Your task to perform on an android device: star an email in the gmail app Image 0: 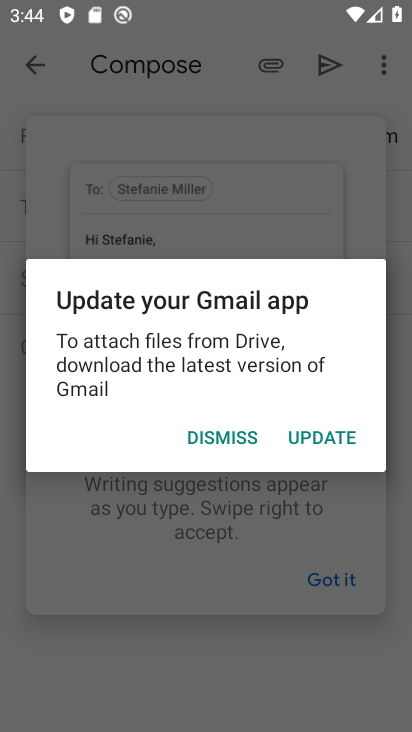
Step 0: press home button
Your task to perform on an android device: star an email in the gmail app Image 1: 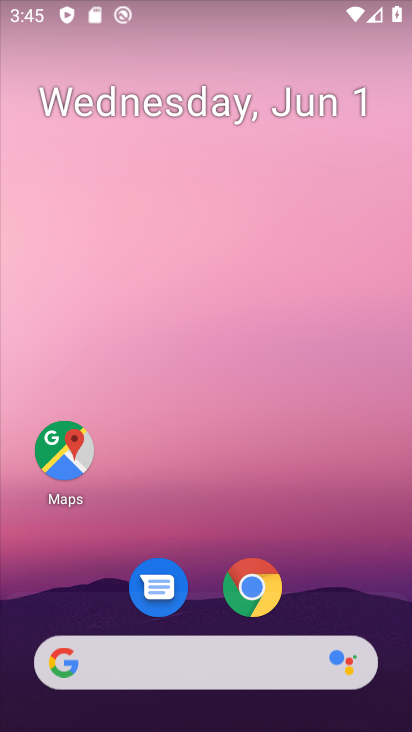
Step 1: drag from (309, 587) to (227, 194)
Your task to perform on an android device: star an email in the gmail app Image 2: 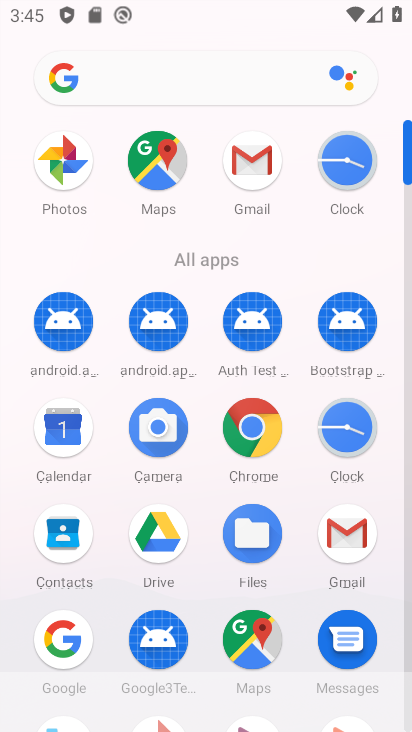
Step 2: click (250, 158)
Your task to perform on an android device: star an email in the gmail app Image 3: 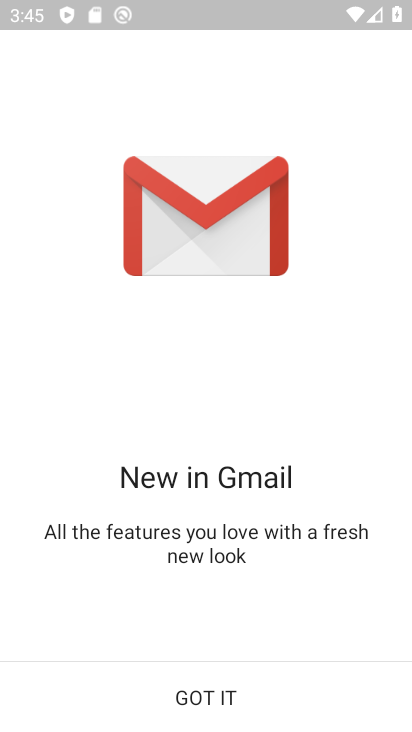
Step 3: click (208, 696)
Your task to perform on an android device: star an email in the gmail app Image 4: 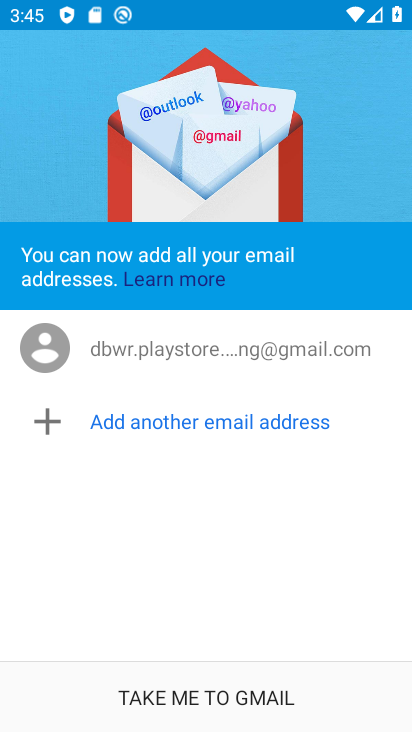
Step 4: click (208, 696)
Your task to perform on an android device: star an email in the gmail app Image 5: 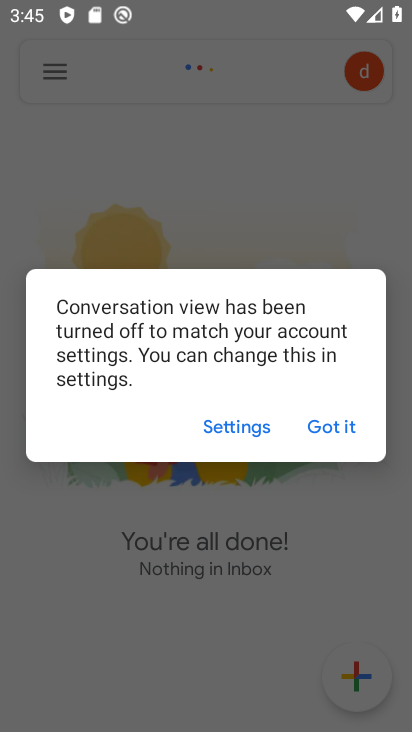
Step 5: click (332, 427)
Your task to perform on an android device: star an email in the gmail app Image 6: 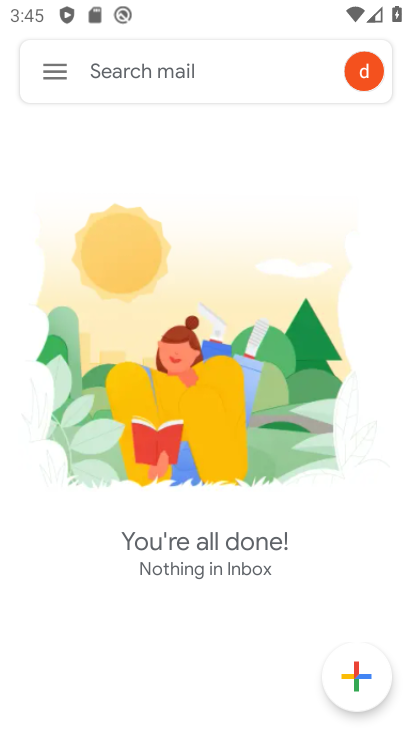
Step 6: click (61, 72)
Your task to perform on an android device: star an email in the gmail app Image 7: 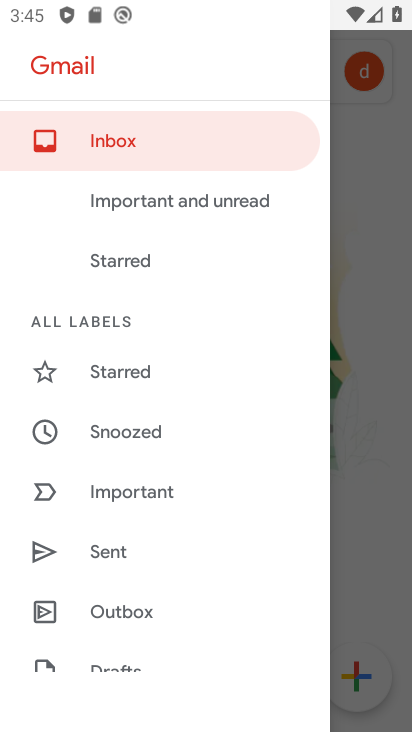
Step 7: click (103, 125)
Your task to perform on an android device: star an email in the gmail app Image 8: 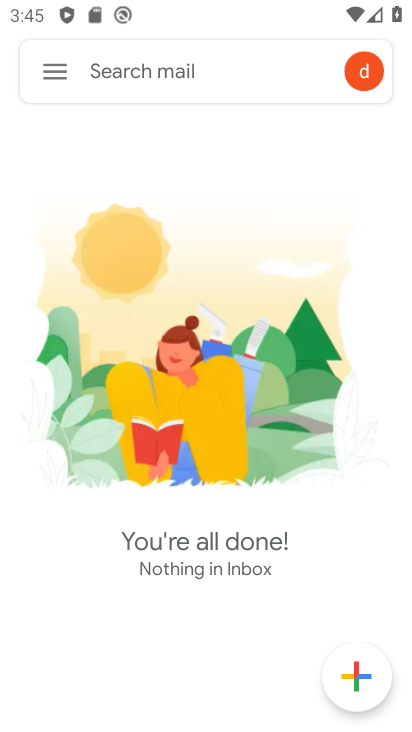
Step 8: click (44, 70)
Your task to perform on an android device: star an email in the gmail app Image 9: 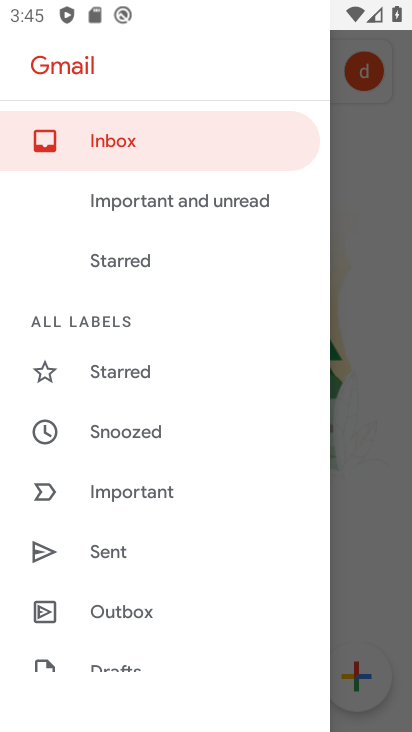
Step 9: click (125, 252)
Your task to perform on an android device: star an email in the gmail app Image 10: 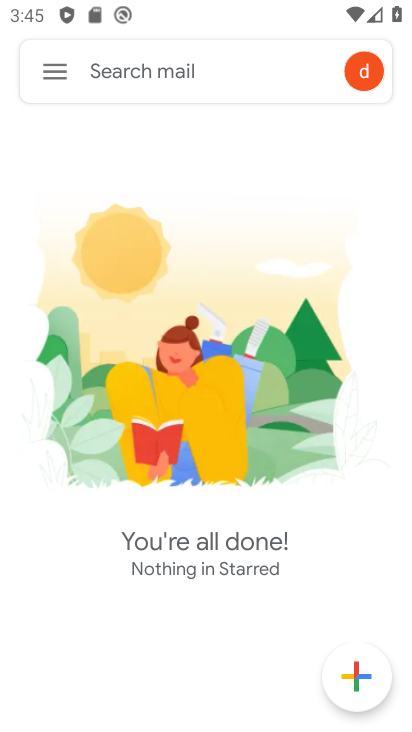
Step 10: task complete